Your task to perform on an android device: open a bookmark in the chrome app Image 0: 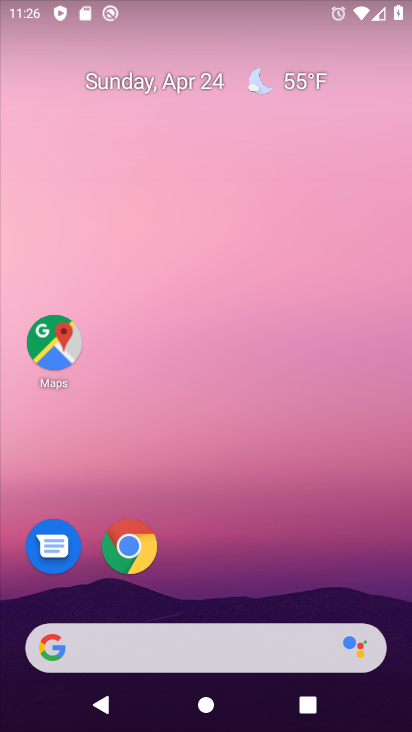
Step 0: click (131, 545)
Your task to perform on an android device: open a bookmark in the chrome app Image 1: 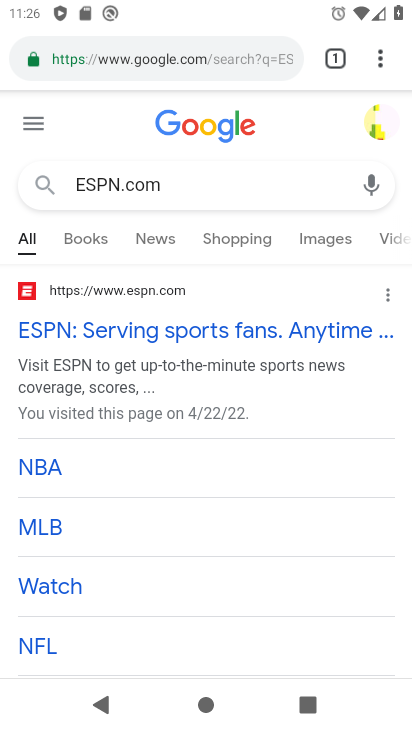
Step 1: click (379, 57)
Your task to perform on an android device: open a bookmark in the chrome app Image 2: 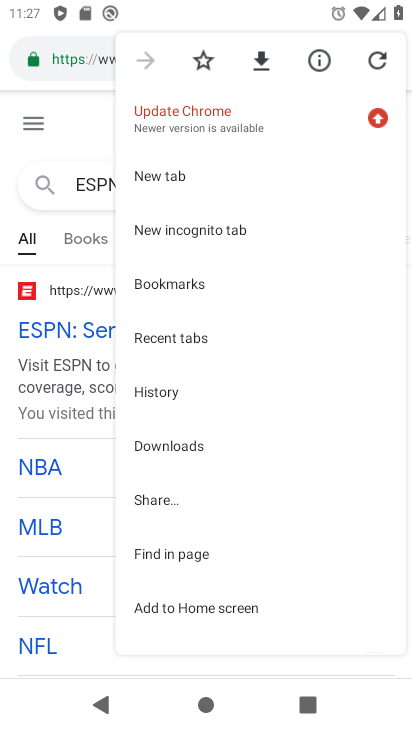
Step 2: click (185, 284)
Your task to perform on an android device: open a bookmark in the chrome app Image 3: 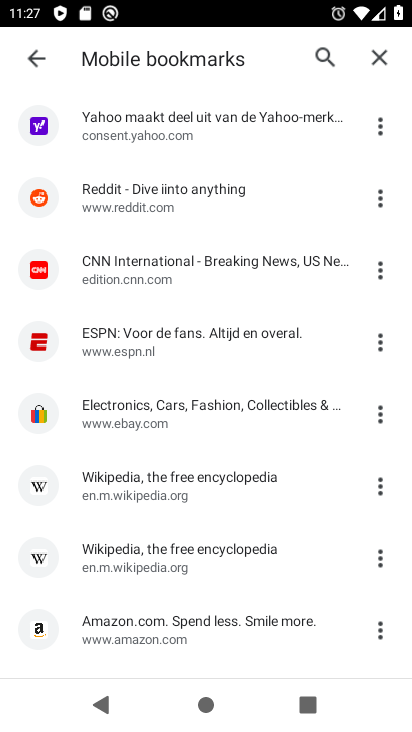
Step 3: task complete